Your task to perform on an android device: turn off picture-in-picture Image 0: 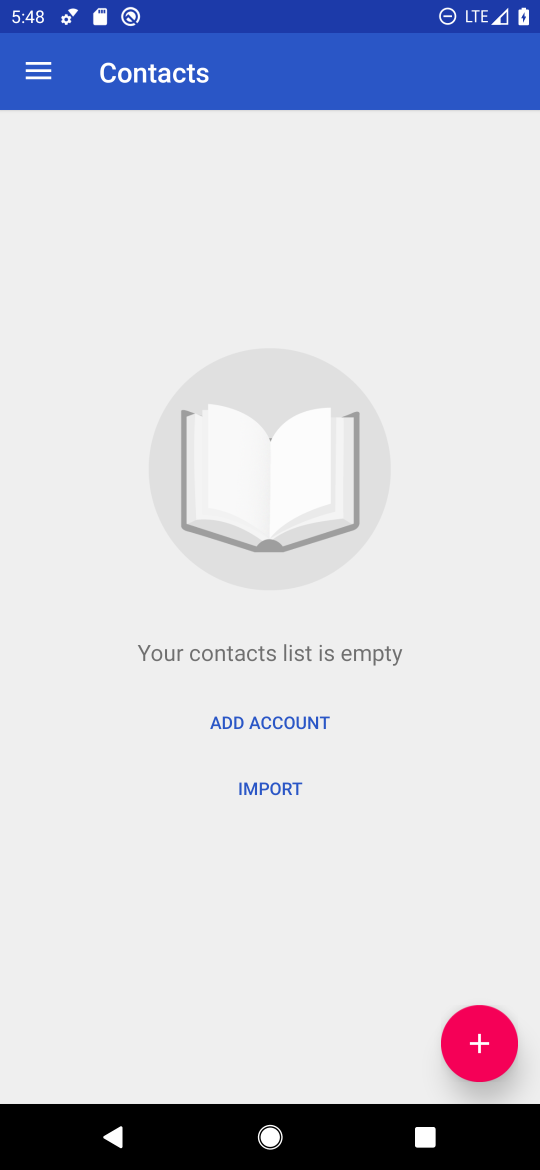
Step 0: press home button
Your task to perform on an android device: turn off picture-in-picture Image 1: 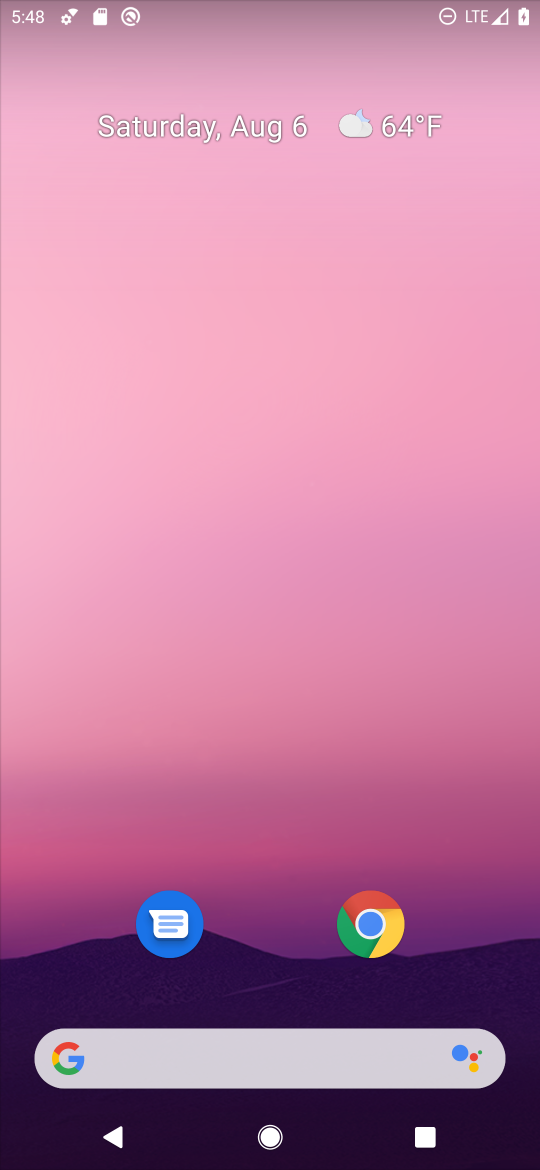
Step 1: drag from (254, 916) to (232, 251)
Your task to perform on an android device: turn off picture-in-picture Image 2: 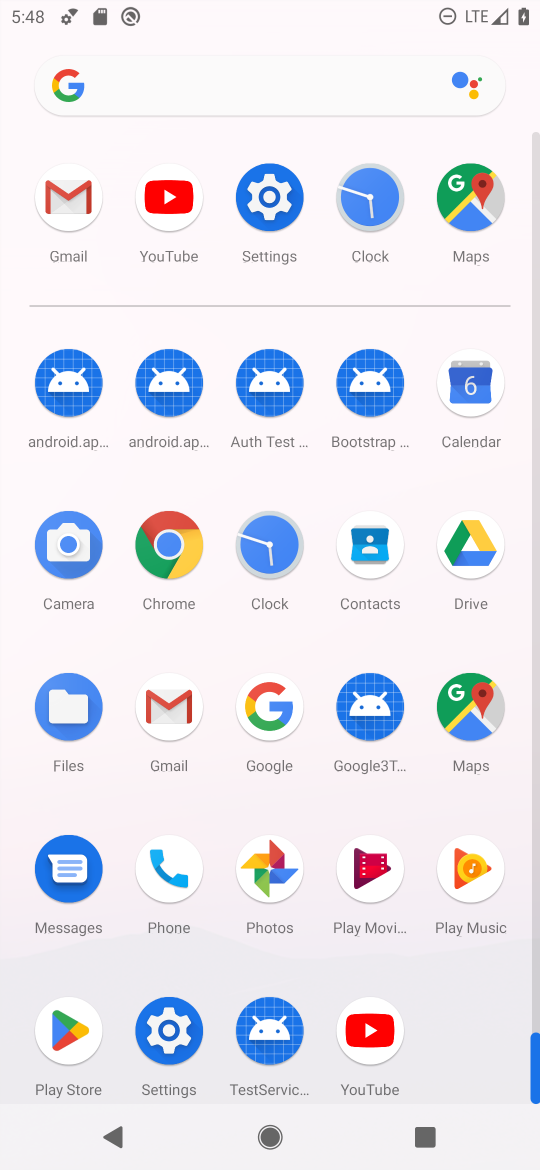
Step 2: click (276, 191)
Your task to perform on an android device: turn off picture-in-picture Image 3: 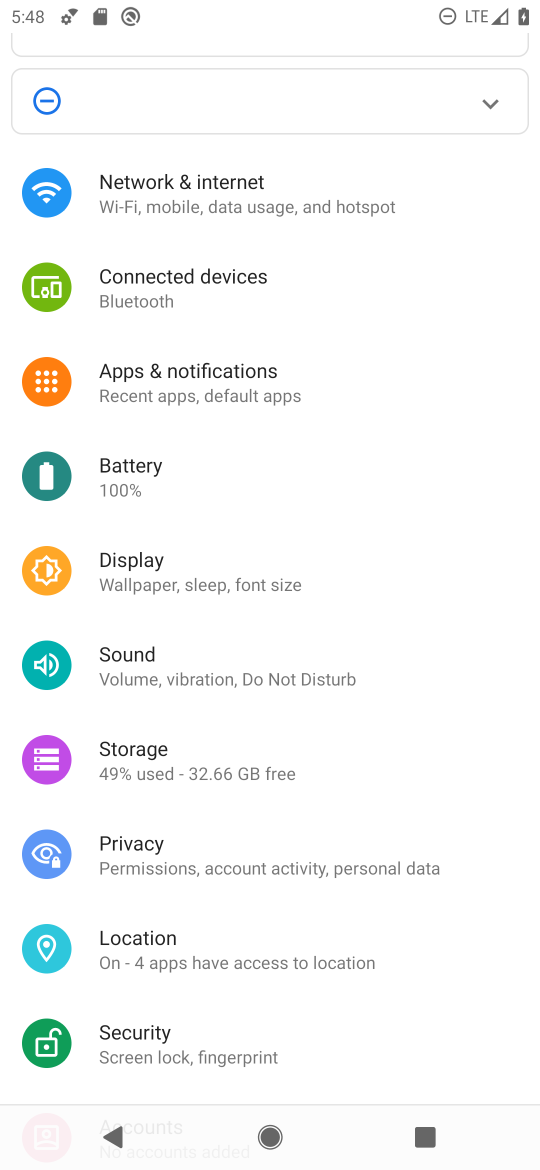
Step 3: click (188, 361)
Your task to perform on an android device: turn off picture-in-picture Image 4: 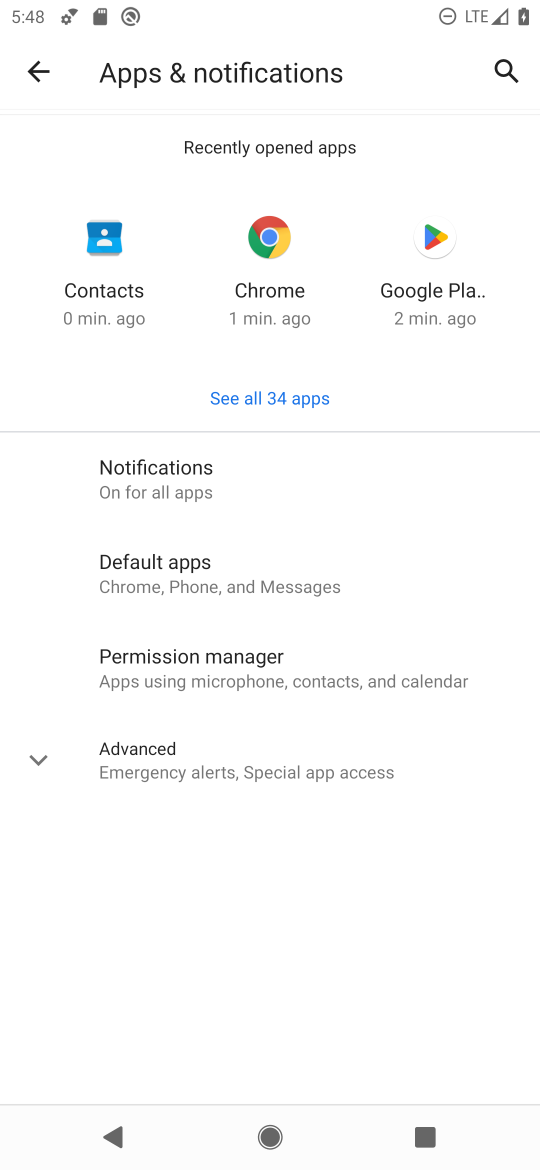
Step 4: click (45, 760)
Your task to perform on an android device: turn off picture-in-picture Image 5: 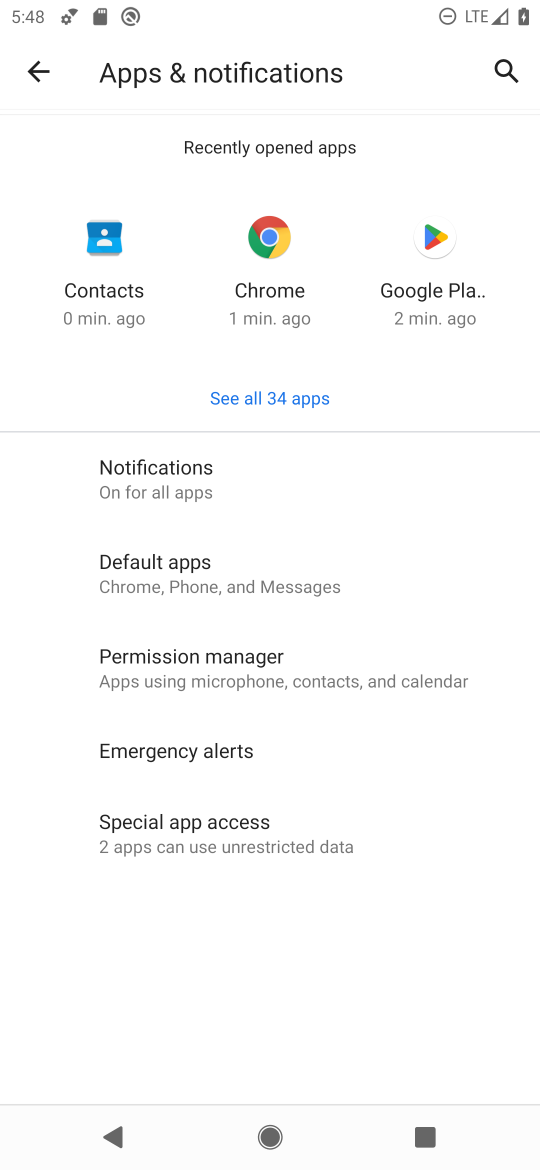
Step 5: click (209, 820)
Your task to perform on an android device: turn off picture-in-picture Image 6: 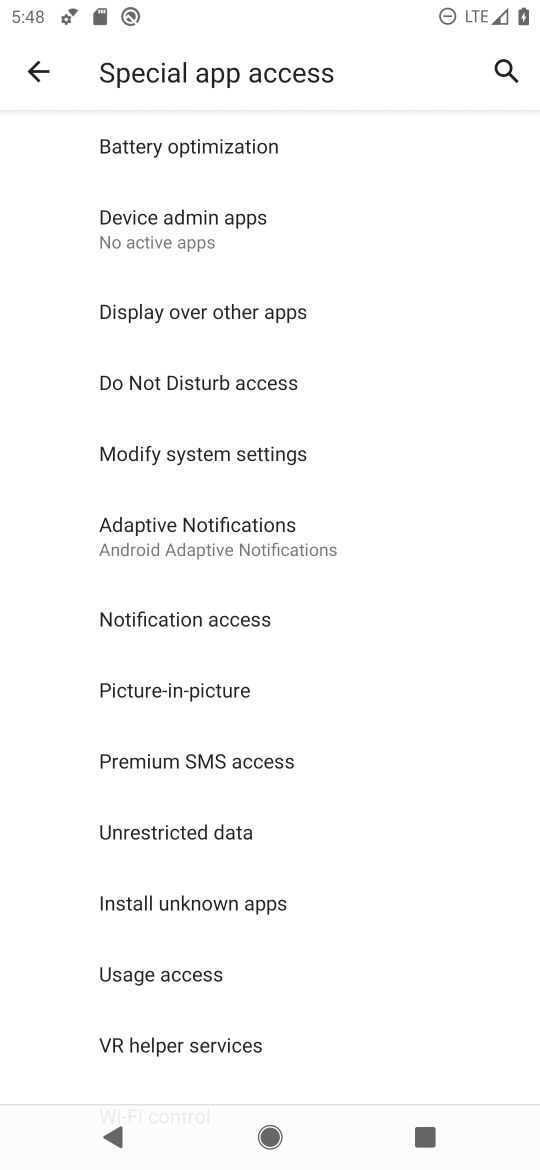
Step 6: click (177, 673)
Your task to perform on an android device: turn off picture-in-picture Image 7: 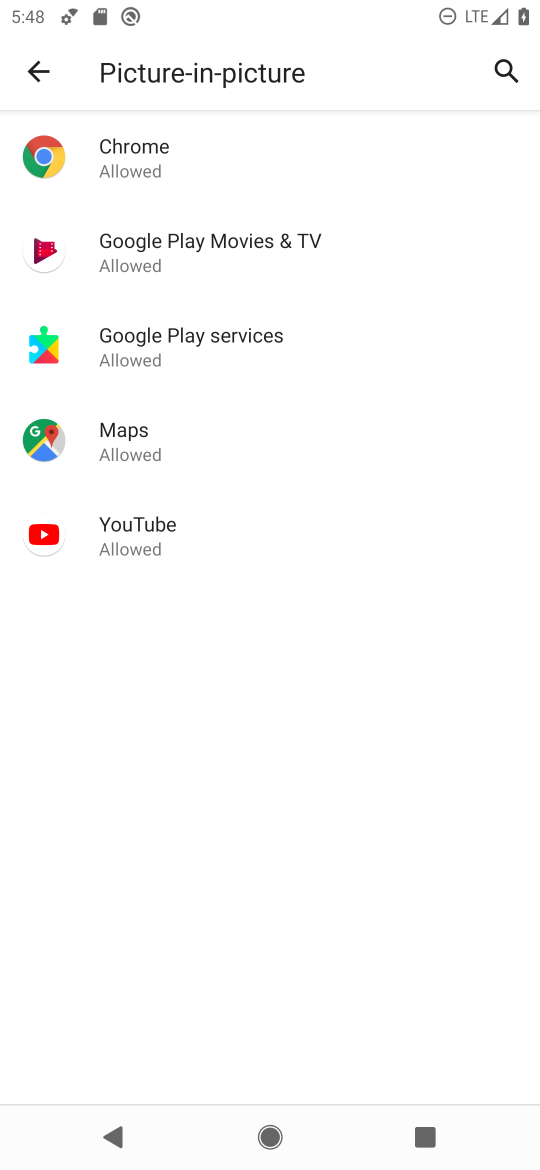
Step 7: click (131, 152)
Your task to perform on an android device: turn off picture-in-picture Image 8: 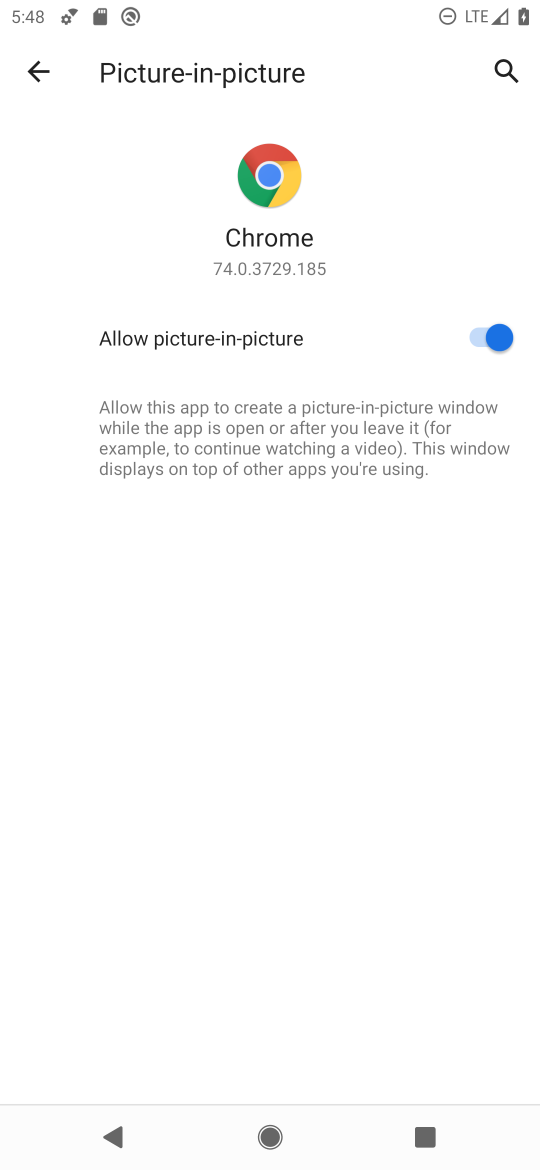
Step 8: click (468, 336)
Your task to perform on an android device: turn off picture-in-picture Image 9: 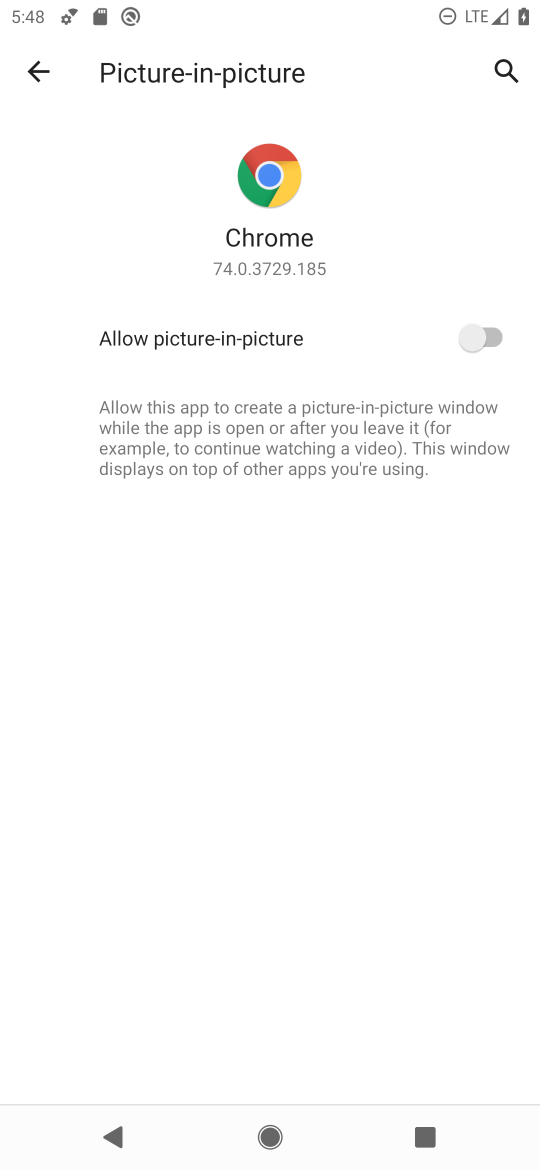
Step 9: click (38, 74)
Your task to perform on an android device: turn off picture-in-picture Image 10: 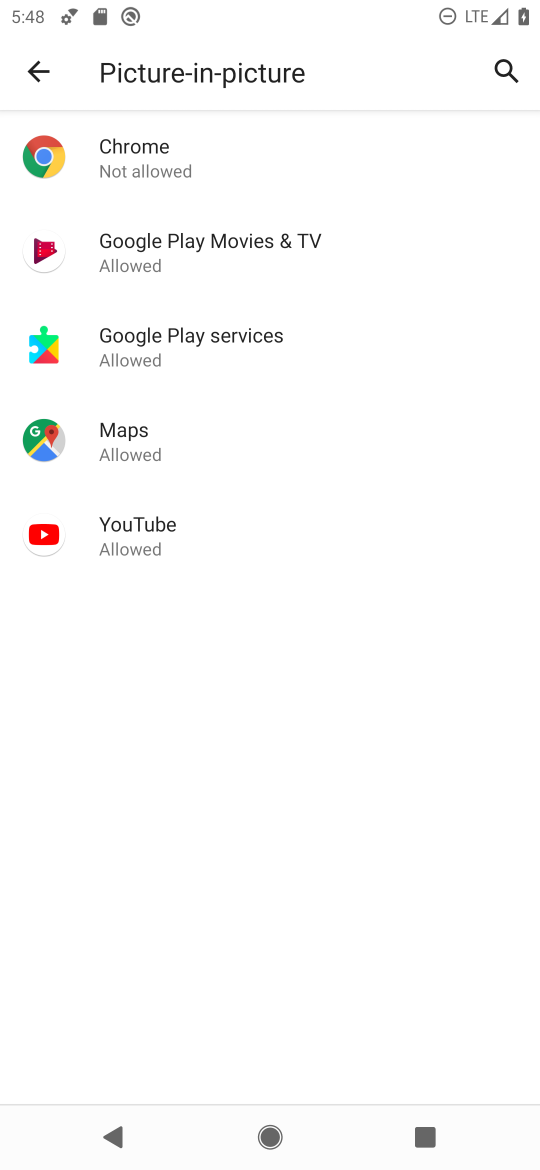
Step 10: click (155, 245)
Your task to perform on an android device: turn off picture-in-picture Image 11: 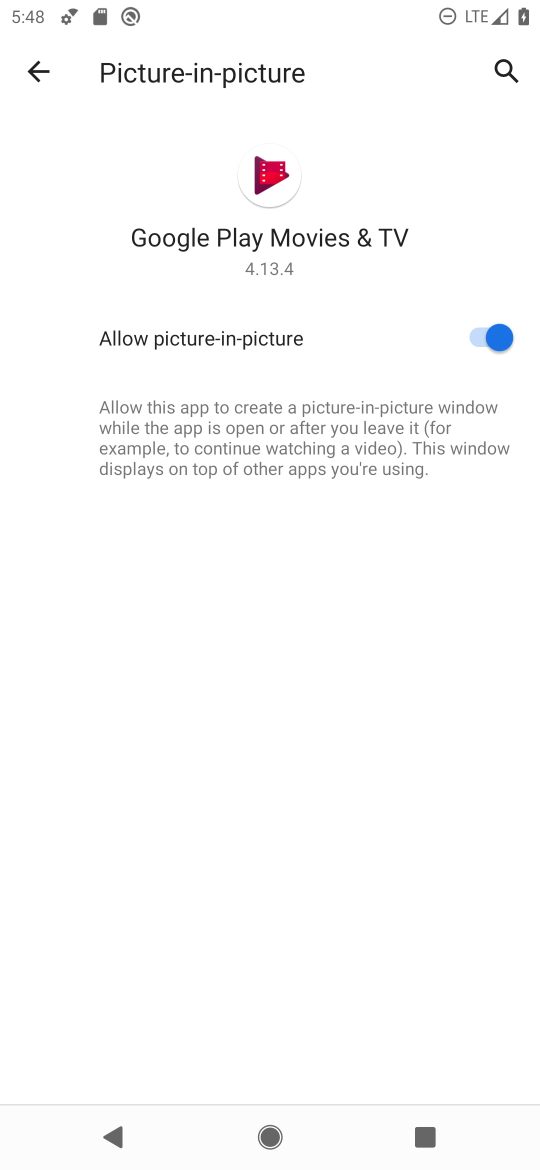
Step 11: click (499, 335)
Your task to perform on an android device: turn off picture-in-picture Image 12: 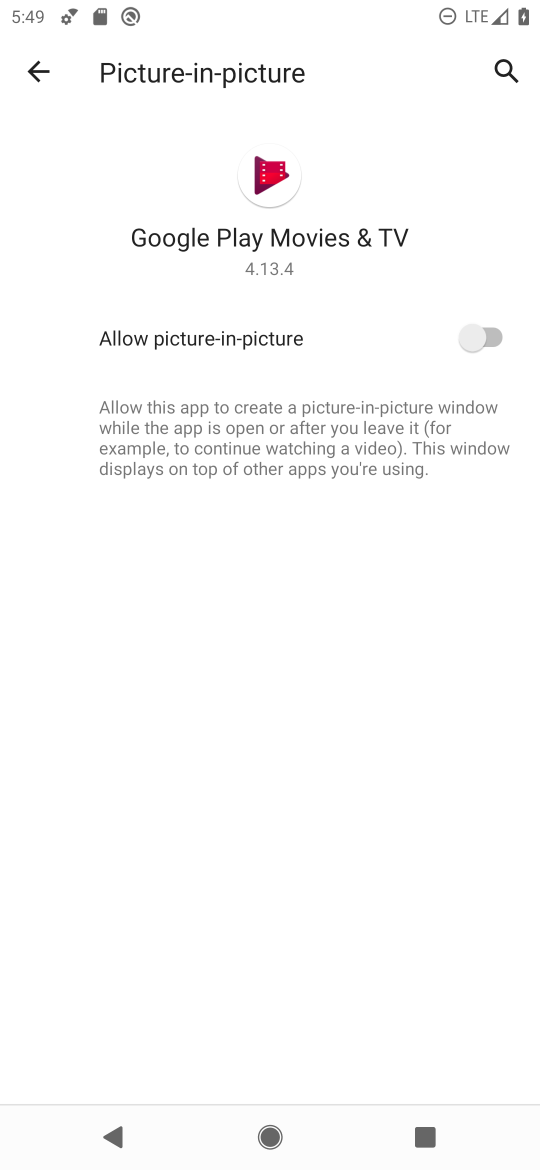
Step 12: click (31, 68)
Your task to perform on an android device: turn off picture-in-picture Image 13: 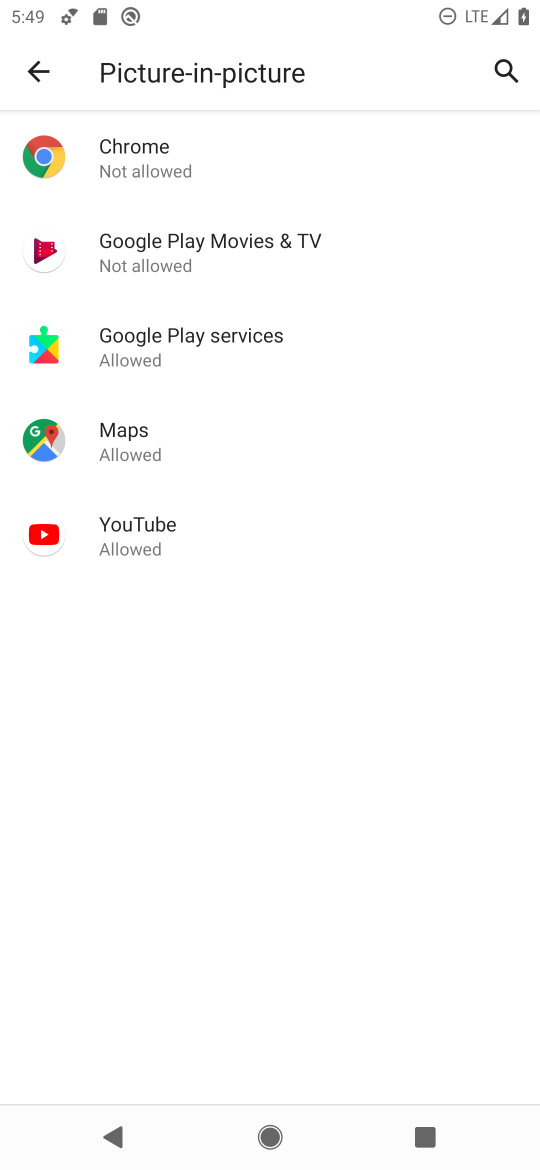
Step 13: click (139, 334)
Your task to perform on an android device: turn off picture-in-picture Image 14: 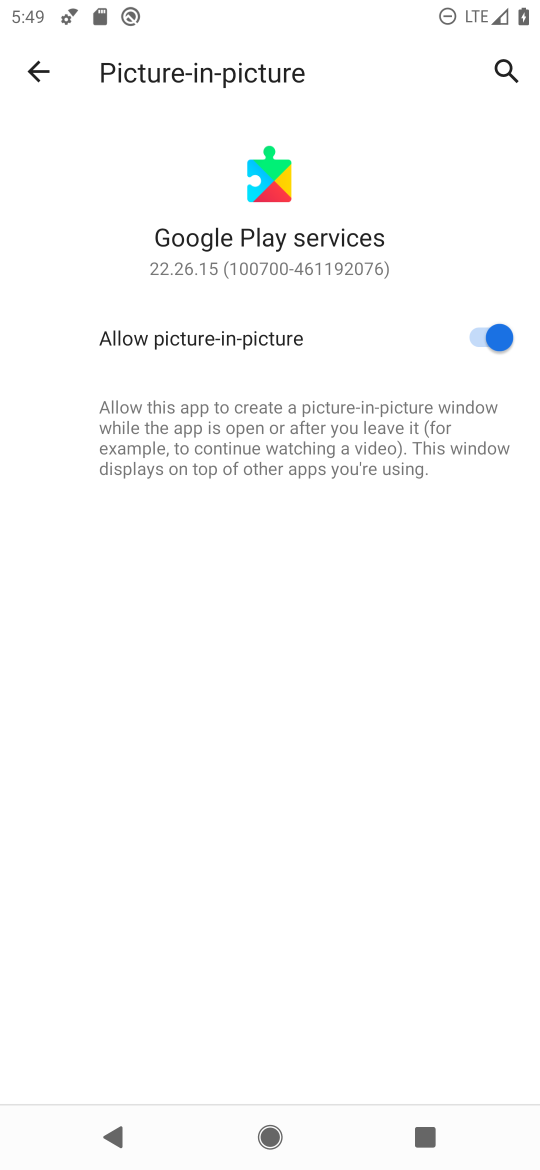
Step 14: click (503, 327)
Your task to perform on an android device: turn off picture-in-picture Image 15: 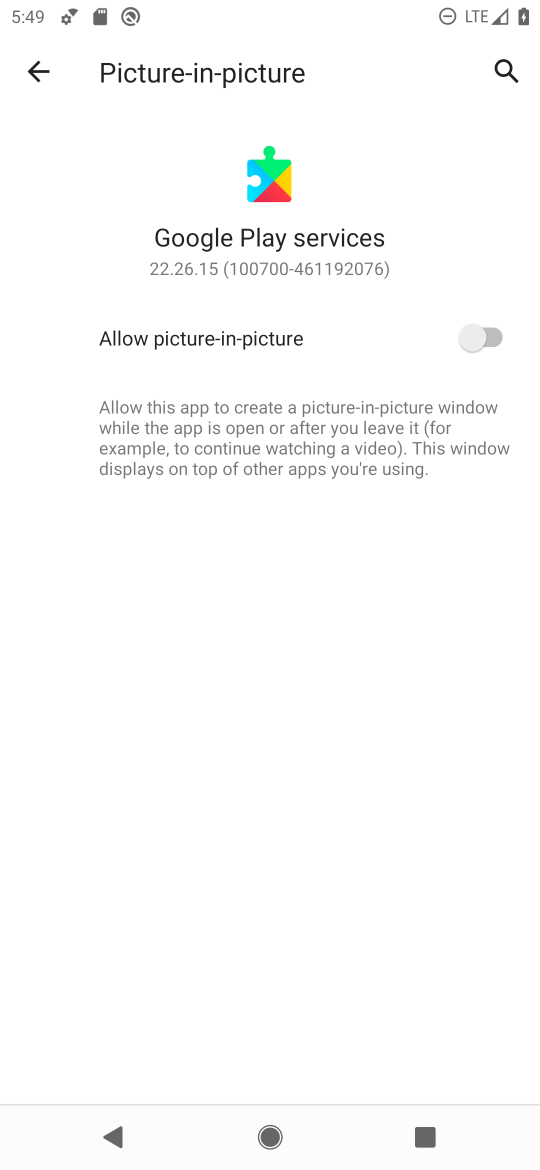
Step 15: click (24, 62)
Your task to perform on an android device: turn off picture-in-picture Image 16: 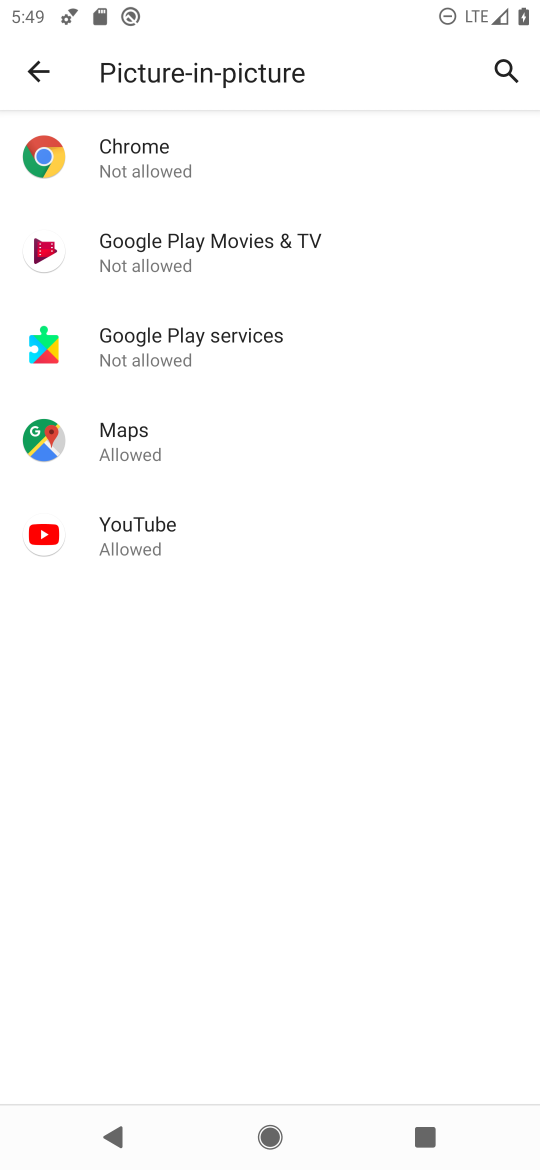
Step 16: click (127, 434)
Your task to perform on an android device: turn off picture-in-picture Image 17: 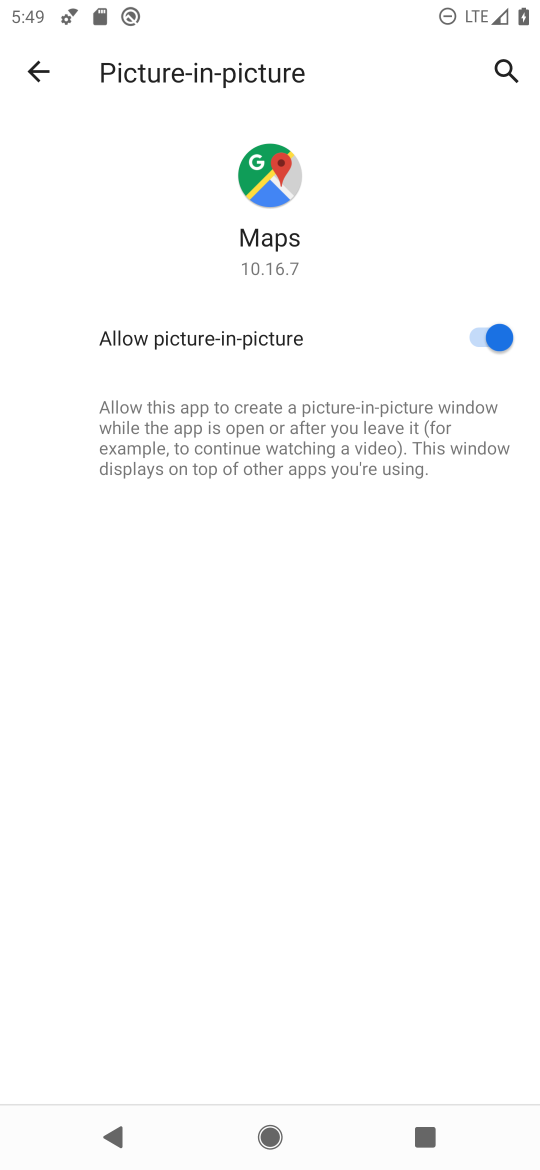
Step 17: click (505, 337)
Your task to perform on an android device: turn off picture-in-picture Image 18: 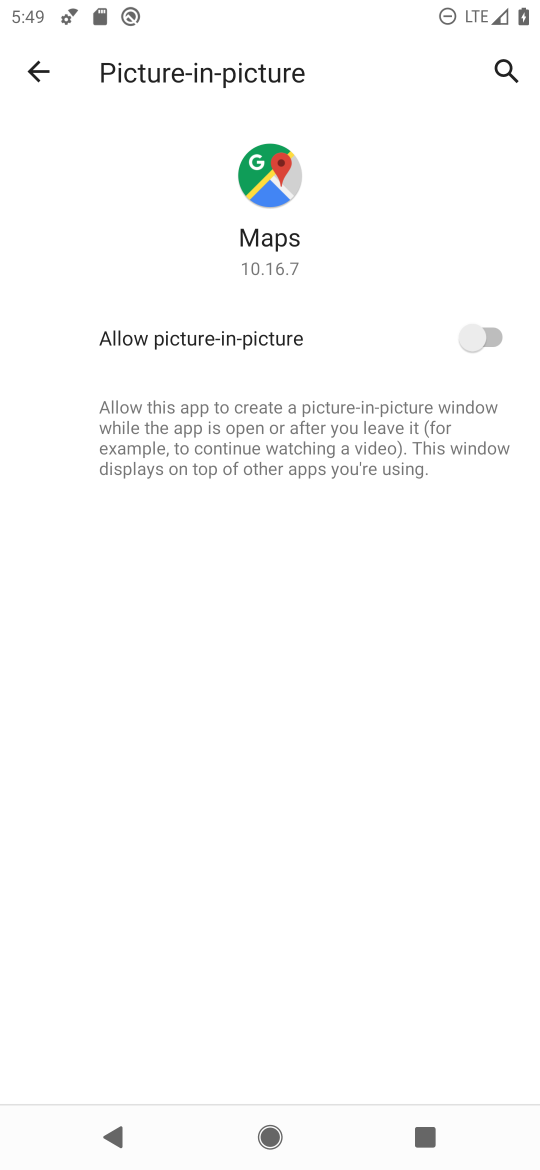
Step 18: click (32, 75)
Your task to perform on an android device: turn off picture-in-picture Image 19: 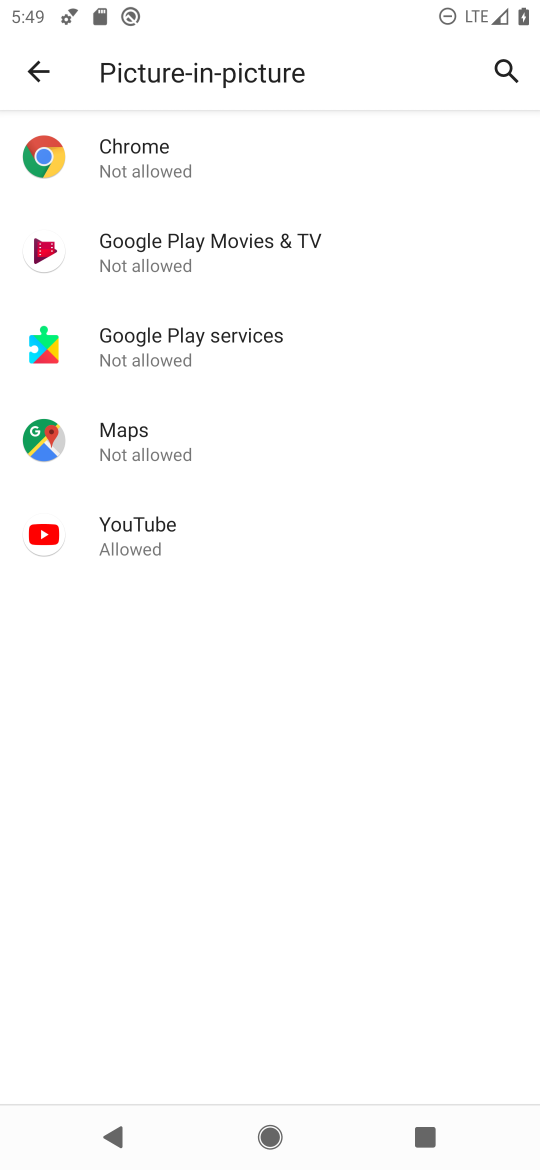
Step 19: click (140, 533)
Your task to perform on an android device: turn off picture-in-picture Image 20: 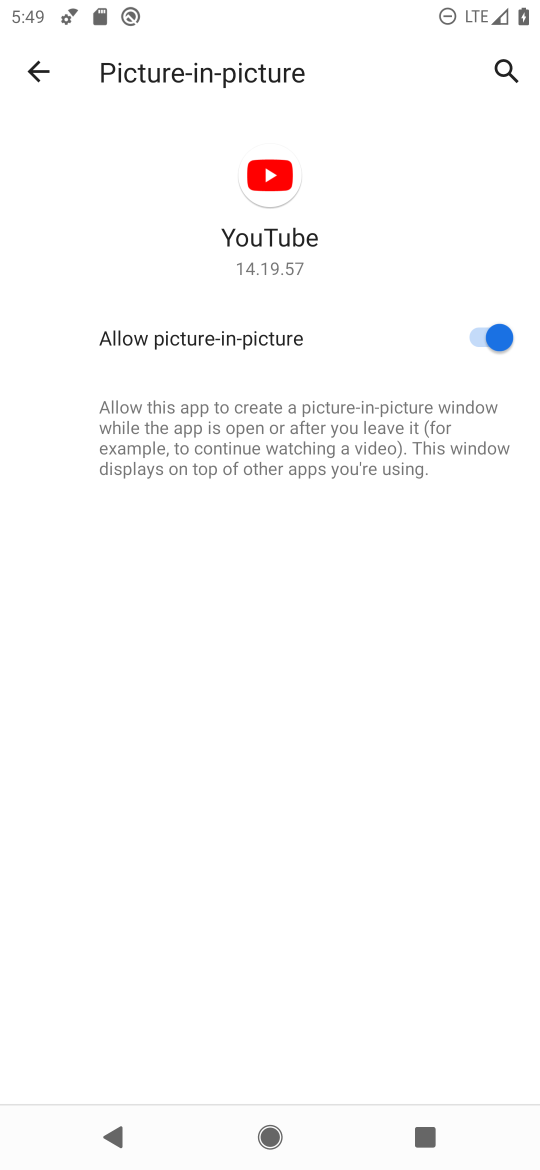
Step 20: click (496, 338)
Your task to perform on an android device: turn off picture-in-picture Image 21: 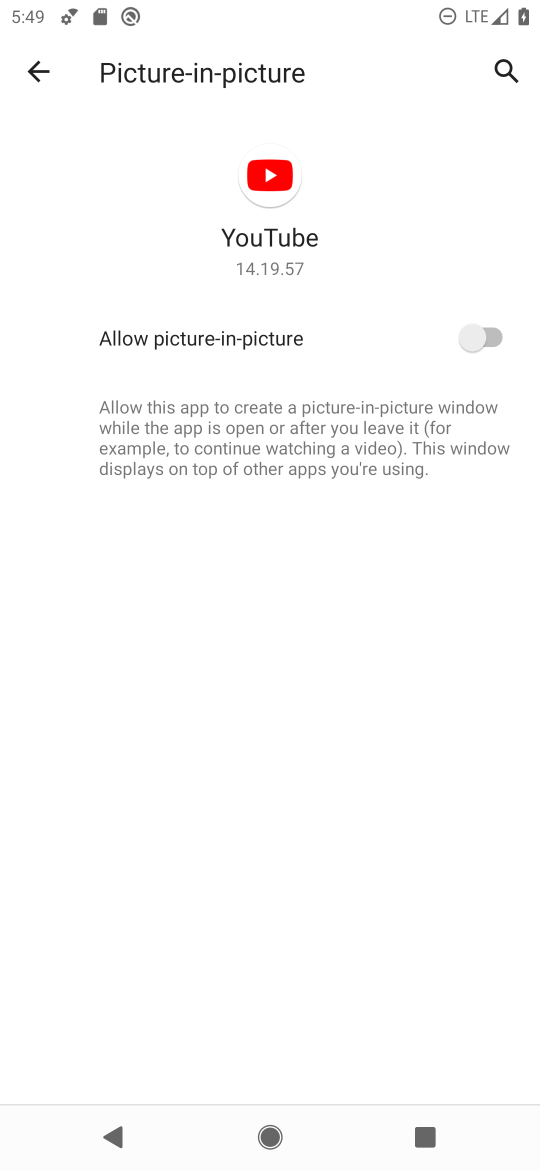
Step 21: click (43, 66)
Your task to perform on an android device: turn off picture-in-picture Image 22: 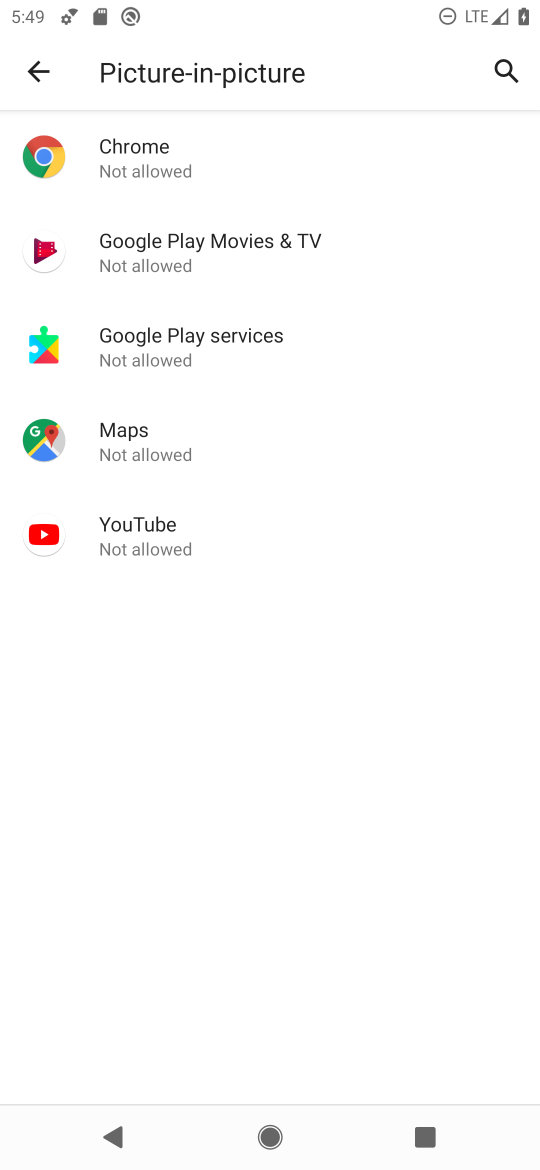
Step 22: task complete